Your task to perform on an android device: manage bookmarks in the chrome app Image 0: 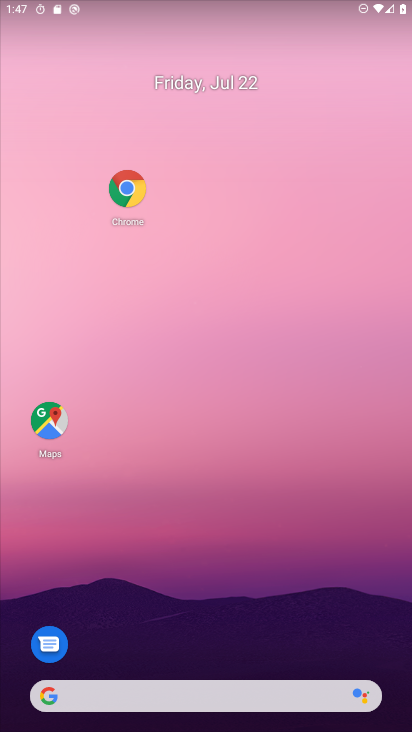
Step 0: click (133, 203)
Your task to perform on an android device: manage bookmarks in the chrome app Image 1: 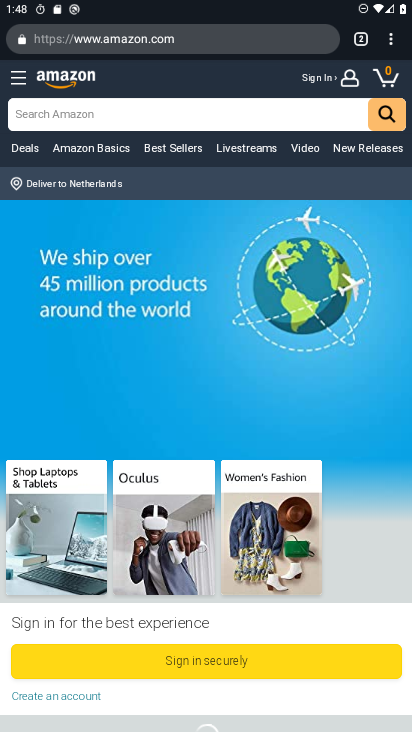
Step 1: click (403, 41)
Your task to perform on an android device: manage bookmarks in the chrome app Image 2: 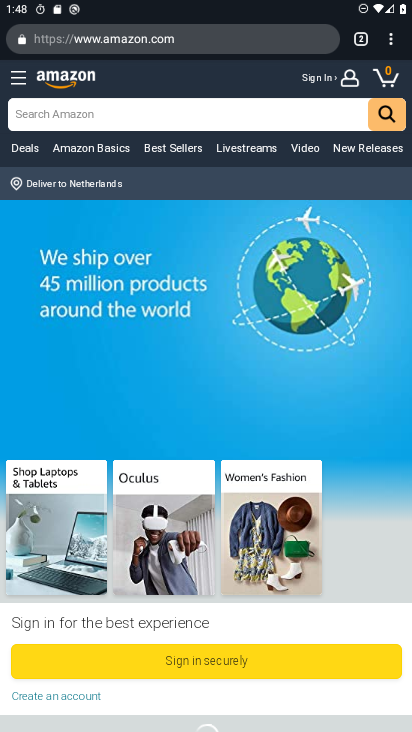
Step 2: click (396, 41)
Your task to perform on an android device: manage bookmarks in the chrome app Image 3: 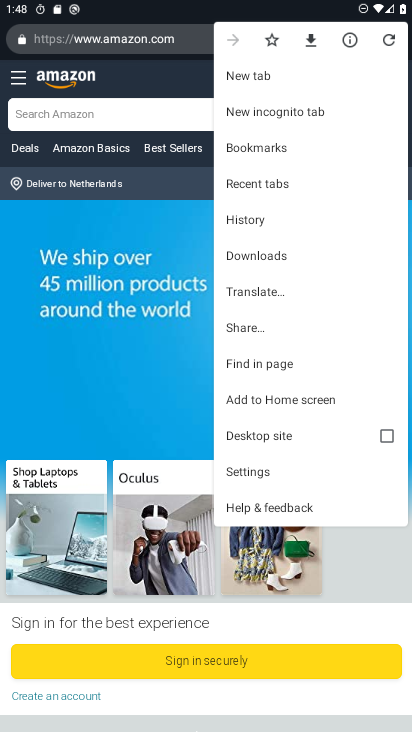
Step 3: click (303, 157)
Your task to perform on an android device: manage bookmarks in the chrome app Image 4: 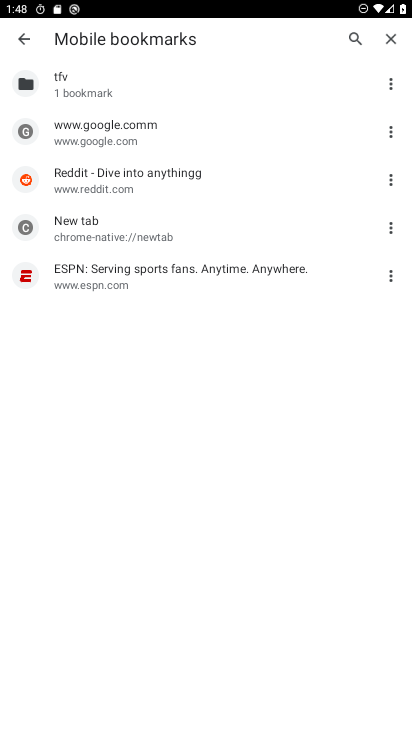
Step 4: click (399, 271)
Your task to perform on an android device: manage bookmarks in the chrome app Image 5: 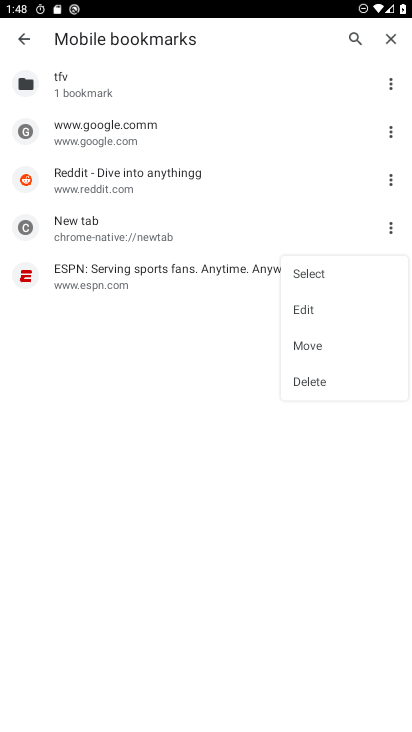
Step 5: click (334, 380)
Your task to perform on an android device: manage bookmarks in the chrome app Image 6: 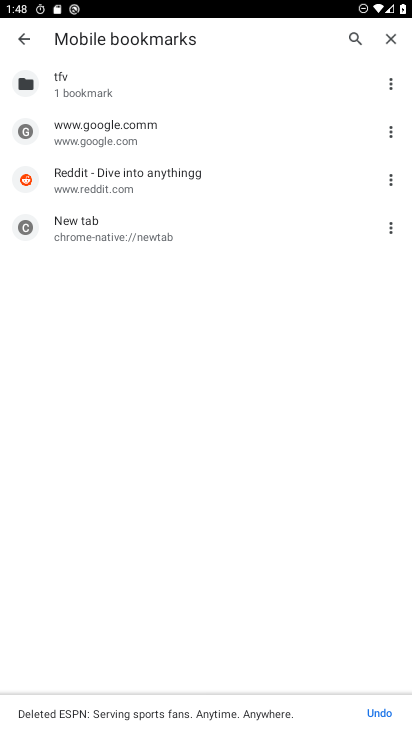
Step 6: task complete